Your task to perform on an android device: open the mobile data screen to see how much data has been used Image 0: 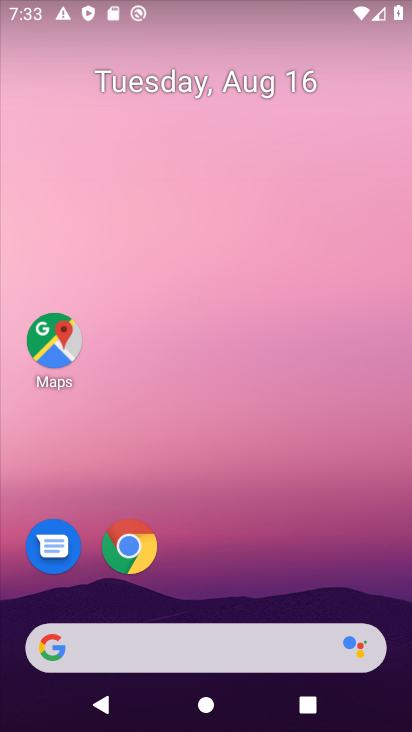
Step 0: drag from (237, 561) to (265, 0)
Your task to perform on an android device: open the mobile data screen to see how much data has been used Image 1: 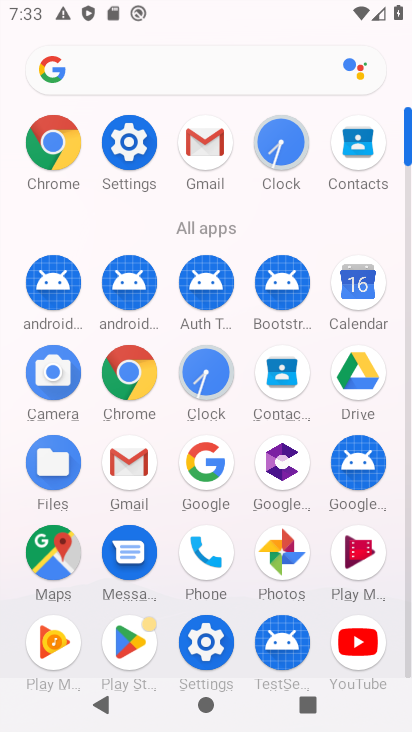
Step 1: click (136, 145)
Your task to perform on an android device: open the mobile data screen to see how much data has been used Image 2: 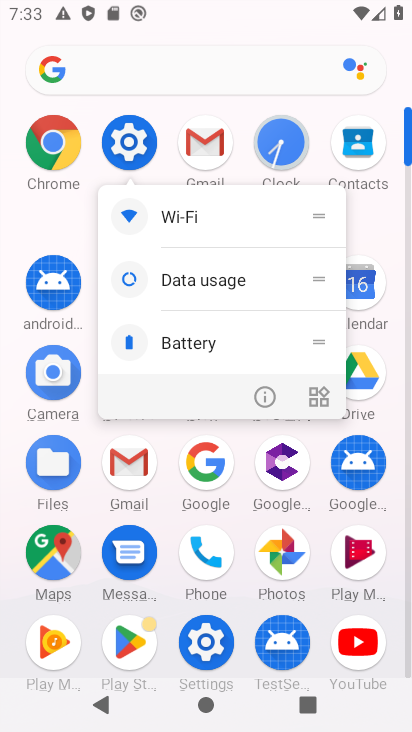
Step 2: click (135, 142)
Your task to perform on an android device: open the mobile data screen to see how much data has been used Image 3: 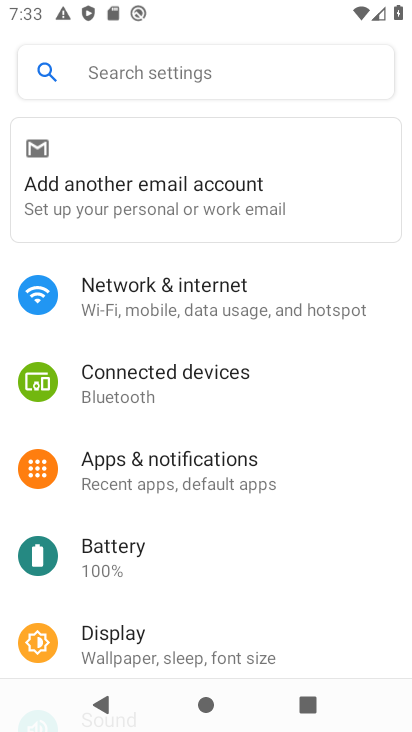
Step 3: click (177, 286)
Your task to perform on an android device: open the mobile data screen to see how much data has been used Image 4: 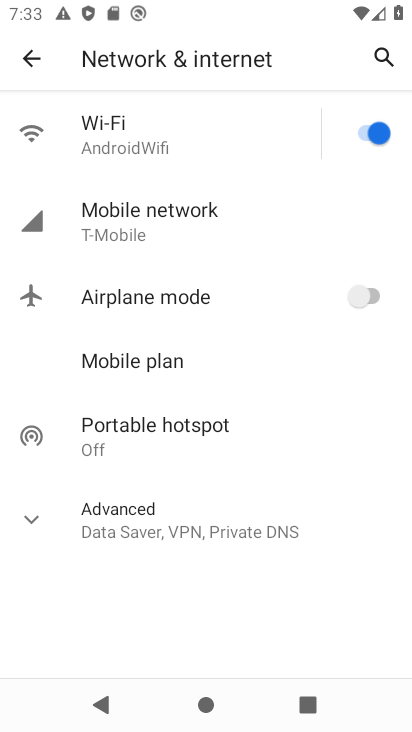
Step 4: click (198, 220)
Your task to perform on an android device: open the mobile data screen to see how much data has been used Image 5: 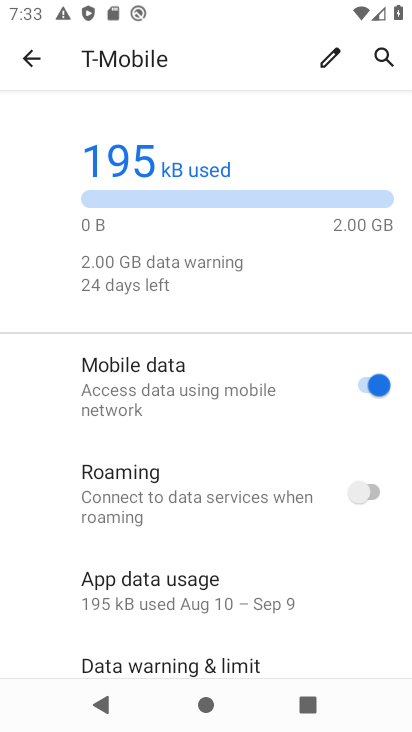
Step 5: task complete